Your task to perform on an android device: What's the weather going to be this weekend? Image 0: 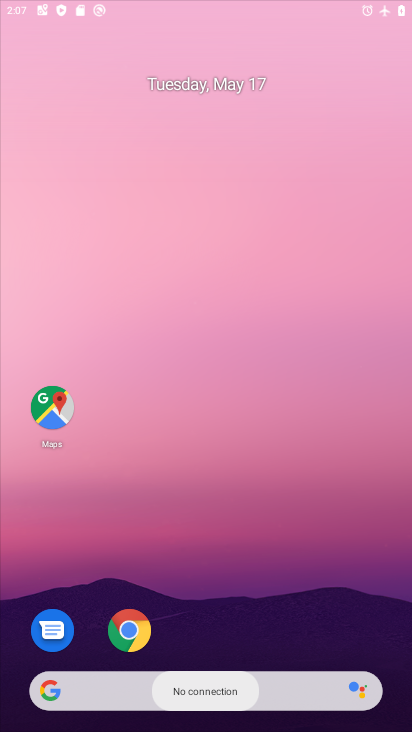
Step 0: drag from (362, 384) to (339, 177)
Your task to perform on an android device: What's the weather going to be this weekend? Image 1: 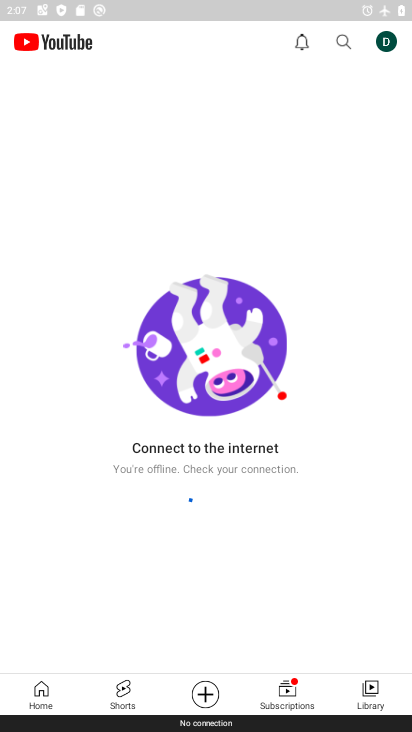
Step 1: press home button
Your task to perform on an android device: What's the weather going to be this weekend? Image 2: 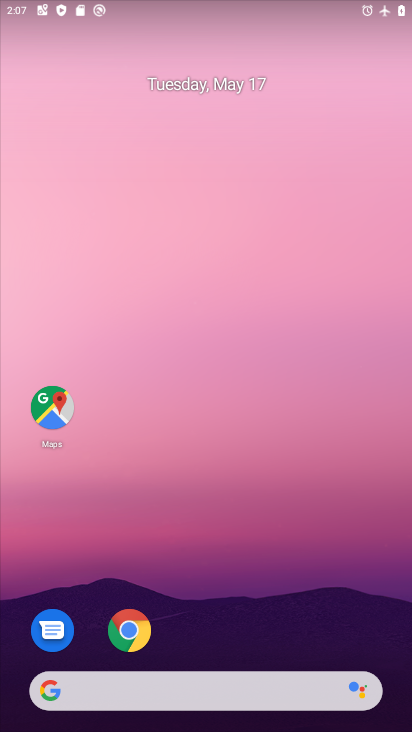
Step 2: click (127, 641)
Your task to perform on an android device: What's the weather going to be this weekend? Image 3: 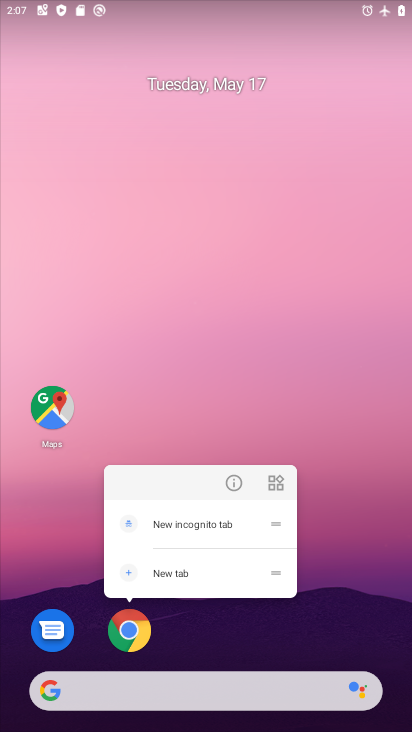
Step 3: click (131, 633)
Your task to perform on an android device: What's the weather going to be this weekend? Image 4: 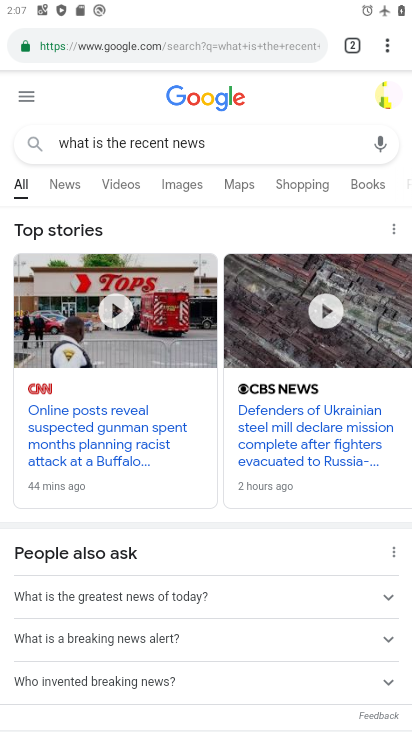
Step 4: click (221, 46)
Your task to perform on an android device: What's the weather going to be this weekend? Image 5: 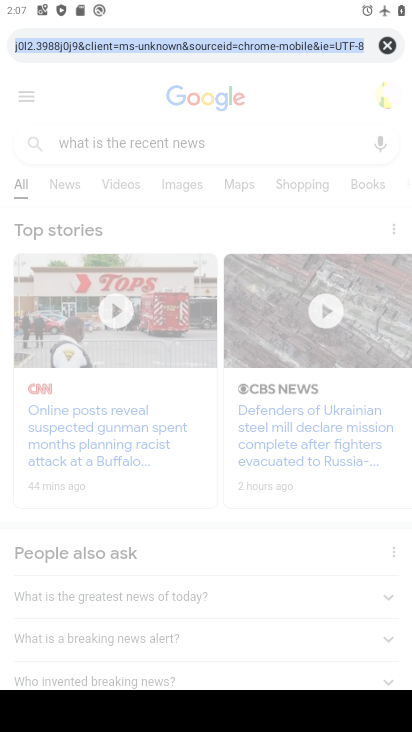
Step 5: click (388, 44)
Your task to perform on an android device: What's the weather going to be this weekend? Image 6: 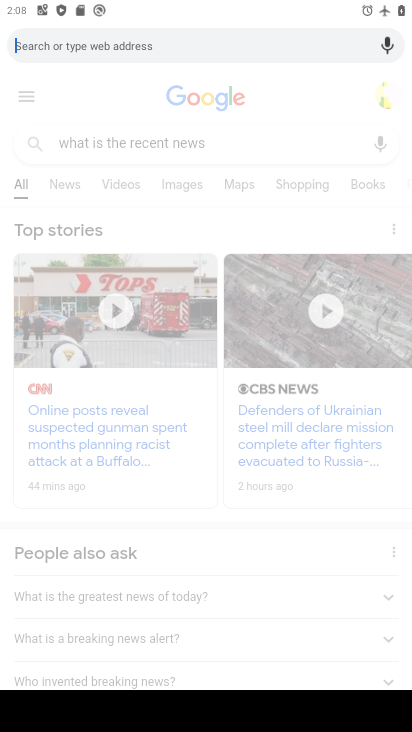
Step 6: type "what's the weather going to be this weekend "
Your task to perform on an android device: What's the weather going to be this weekend? Image 7: 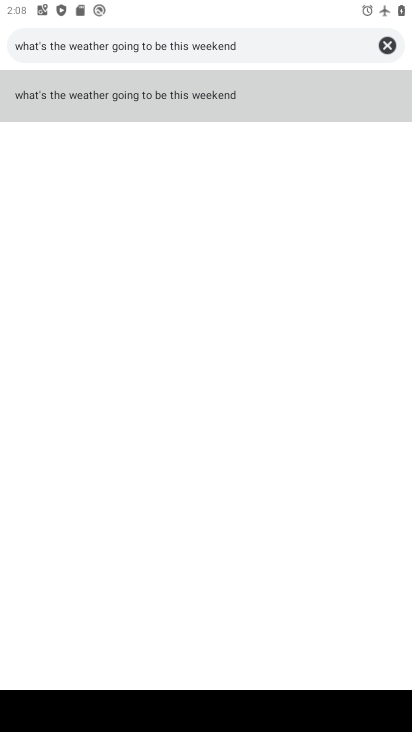
Step 7: click (161, 89)
Your task to perform on an android device: What's the weather going to be this weekend? Image 8: 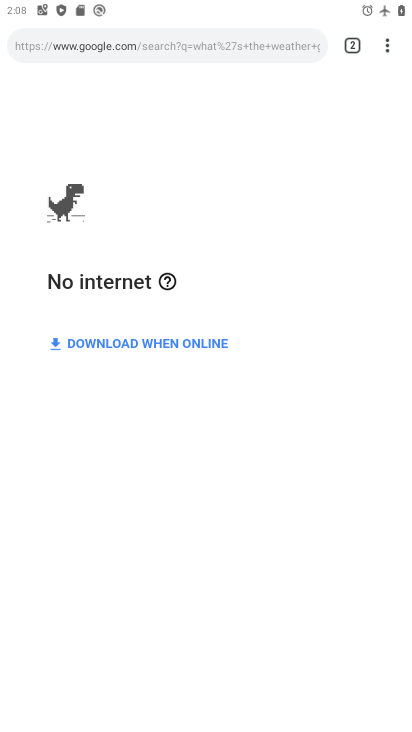
Step 8: task complete